Your task to perform on an android device: Search for pizza restaurants on Maps Image 0: 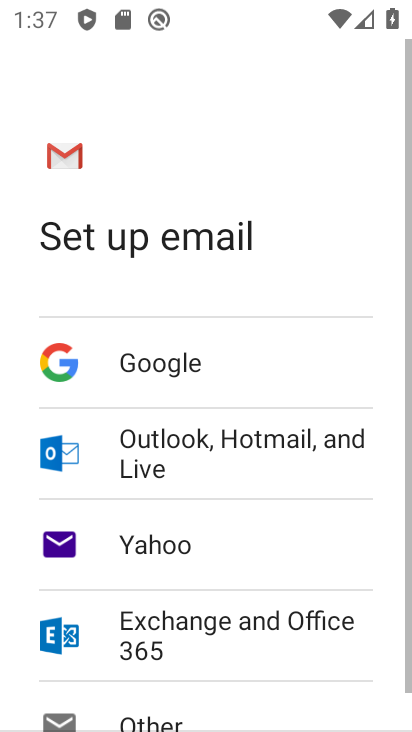
Step 0: press home button
Your task to perform on an android device: Search for pizza restaurants on Maps Image 1: 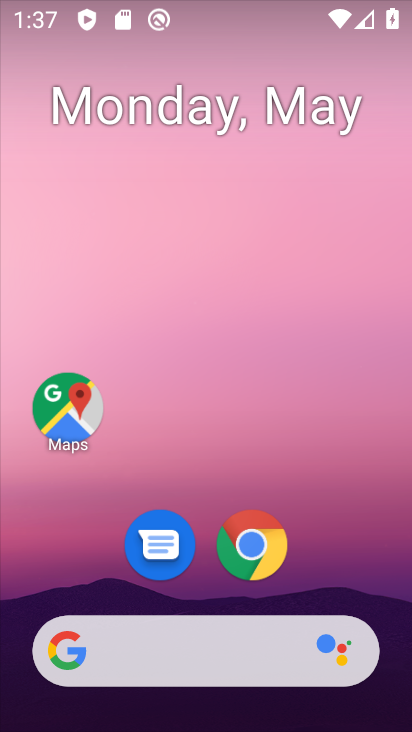
Step 1: click (51, 404)
Your task to perform on an android device: Search for pizza restaurants on Maps Image 2: 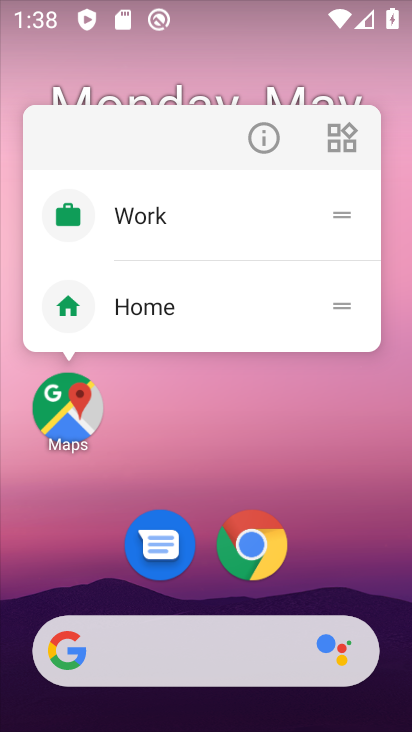
Step 2: click (71, 387)
Your task to perform on an android device: Search for pizza restaurants on Maps Image 3: 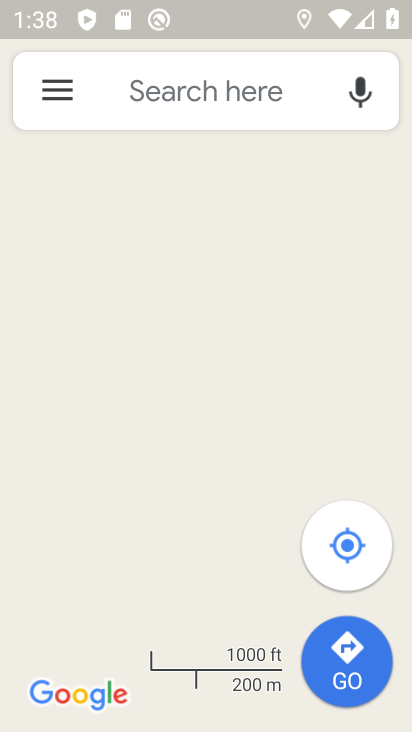
Step 3: click (211, 94)
Your task to perform on an android device: Search for pizza restaurants on Maps Image 4: 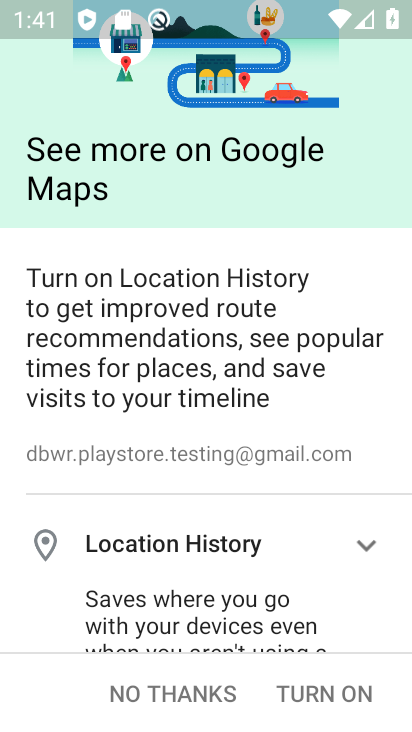
Step 4: click (183, 702)
Your task to perform on an android device: Search for pizza restaurants on Maps Image 5: 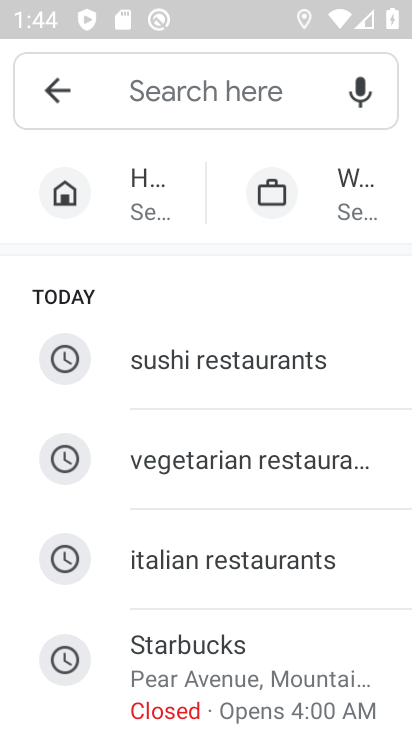
Step 5: drag from (258, 554) to (215, 0)
Your task to perform on an android device: Search for pizza restaurants on Maps Image 6: 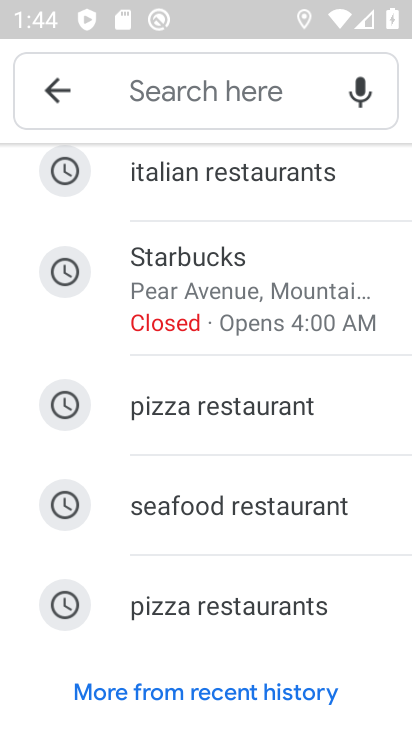
Step 6: click (224, 598)
Your task to perform on an android device: Search for pizza restaurants on Maps Image 7: 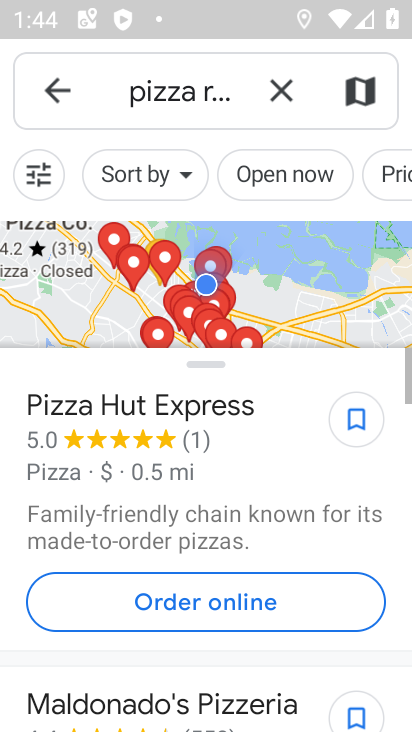
Step 7: task complete